Your task to perform on an android device: open app "Google Docs" (install if not already installed) Image 0: 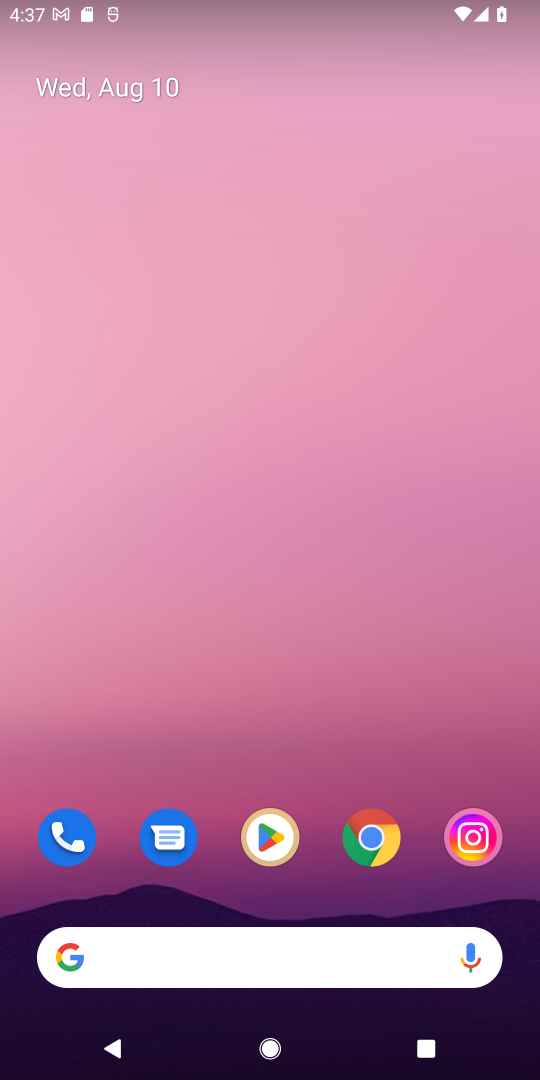
Step 0: click (277, 840)
Your task to perform on an android device: open app "Google Docs" (install if not already installed) Image 1: 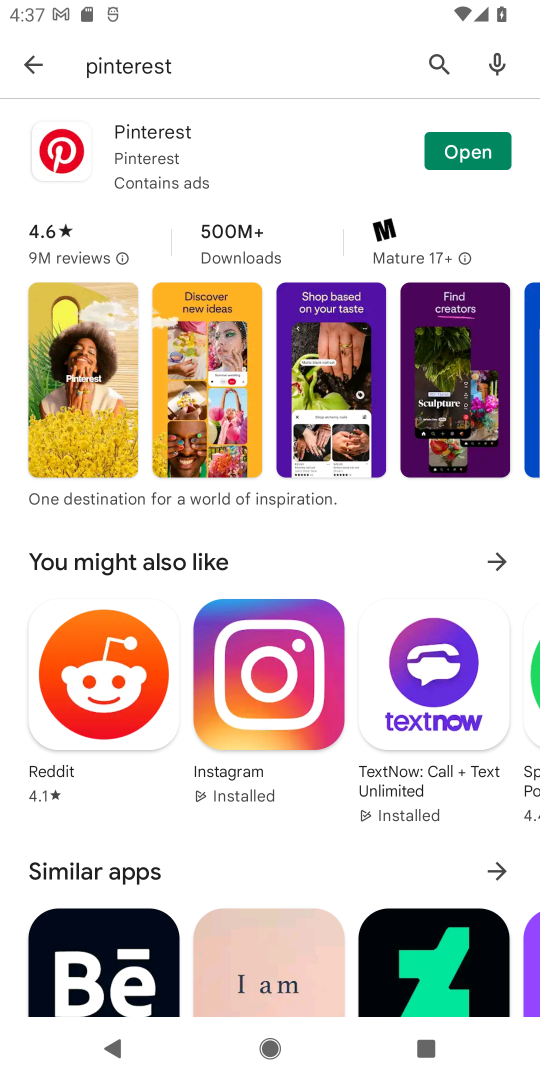
Step 1: click (433, 63)
Your task to perform on an android device: open app "Google Docs" (install if not already installed) Image 2: 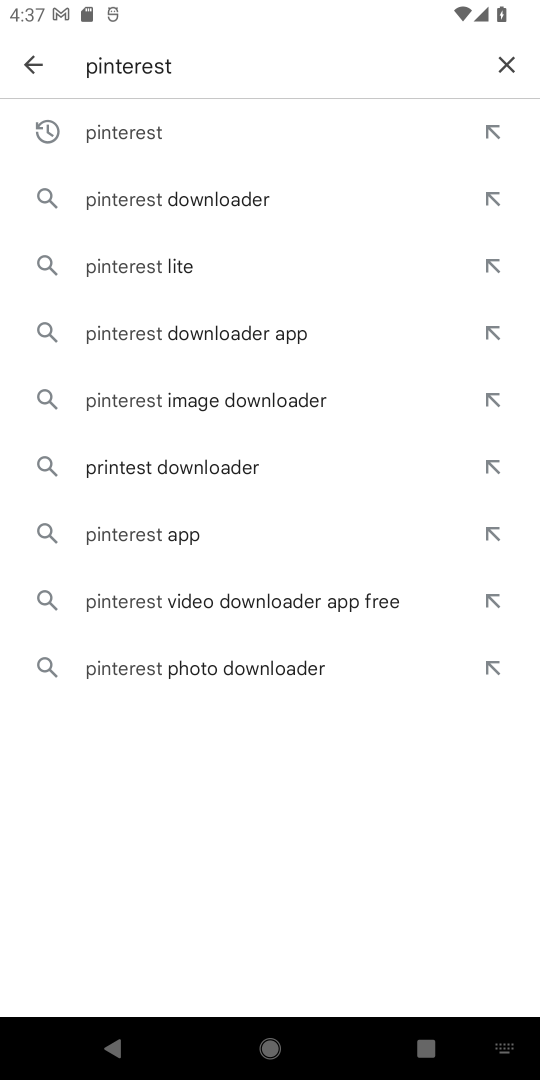
Step 2: click (497, 55)
Your task to perform on an android device: open app "Google Docs" (install if not already installed) Image 3: 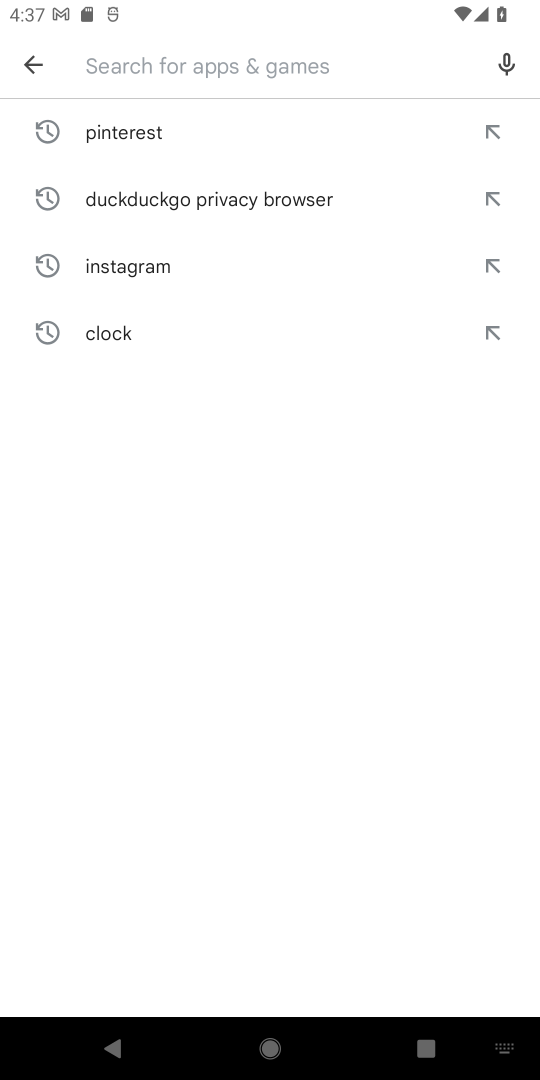
Step 3: type "Google Docs"
Your task to perform on an android device: open app "Google Docs" (install if not already installed) Image 4: 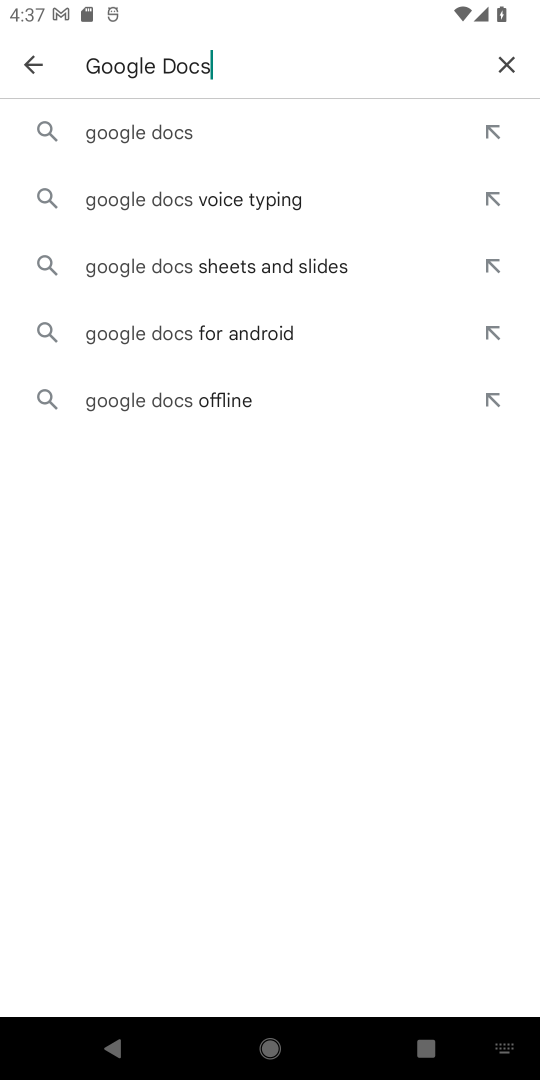
Step 4: click (143, 137)
Your task to perform on an android device: open app "Google Docs" (install if not already installed) Image 5: 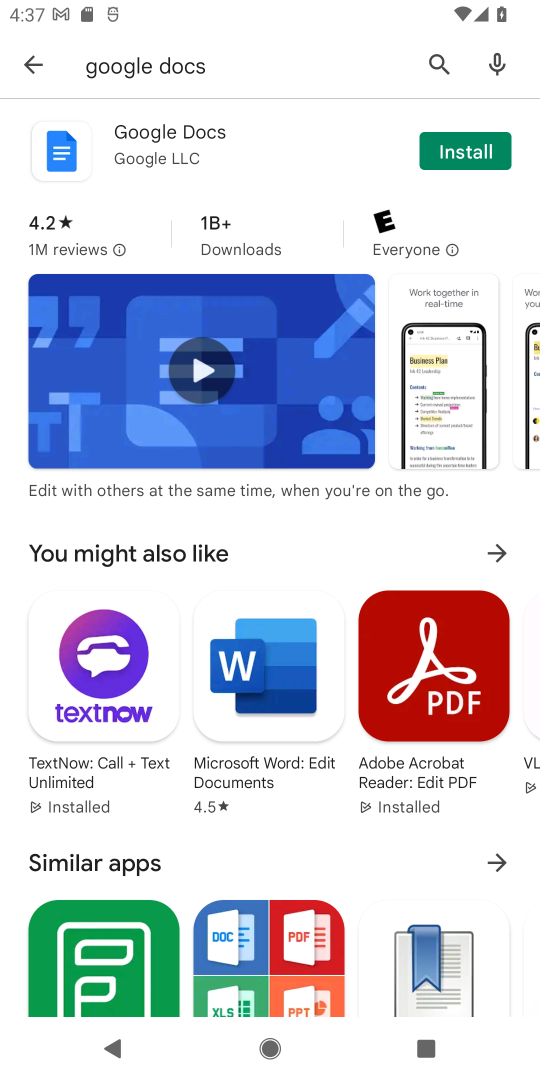
Step 5: click (455, 146)
Your task to perform on an android device: open app "Google Docs" (install if not already installed) Image 6: 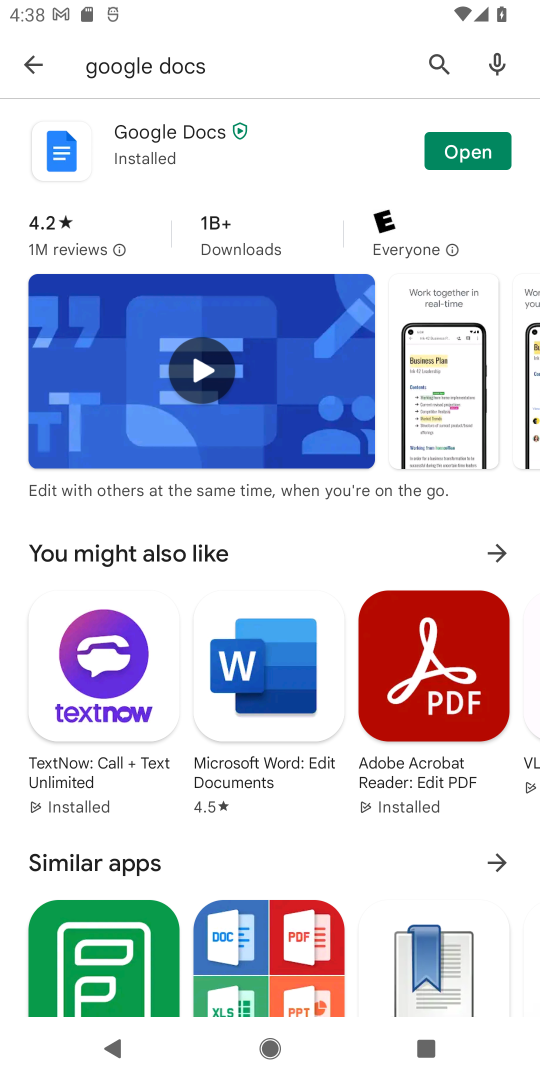
Step 6: click (455, 147)
Your task to perform on an android device: open app "Google Docs" (install if not already installed) Image 7: 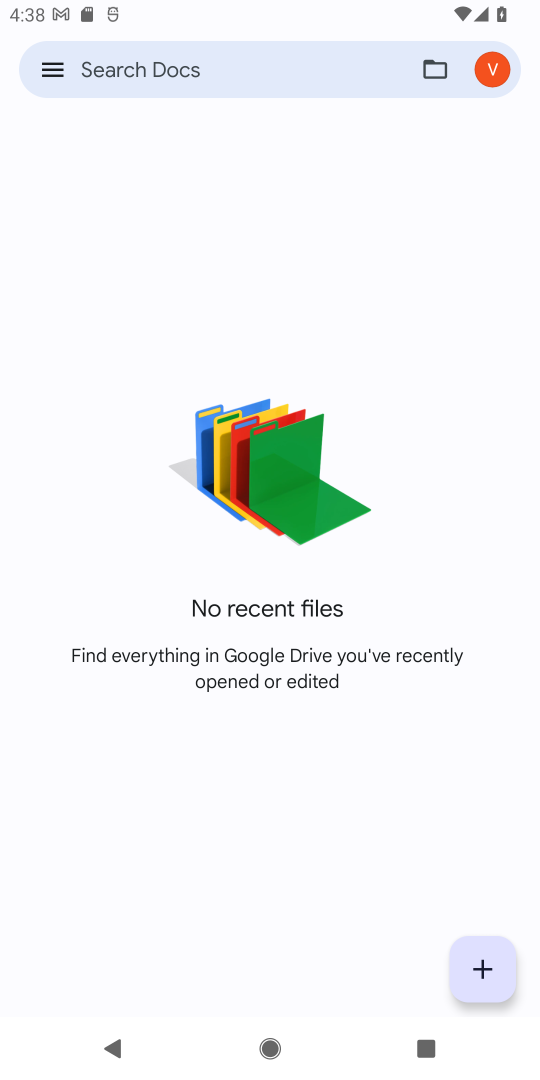
Step 7: task complete